Your task to perform on an android device: Open accessibility settings Image 0: 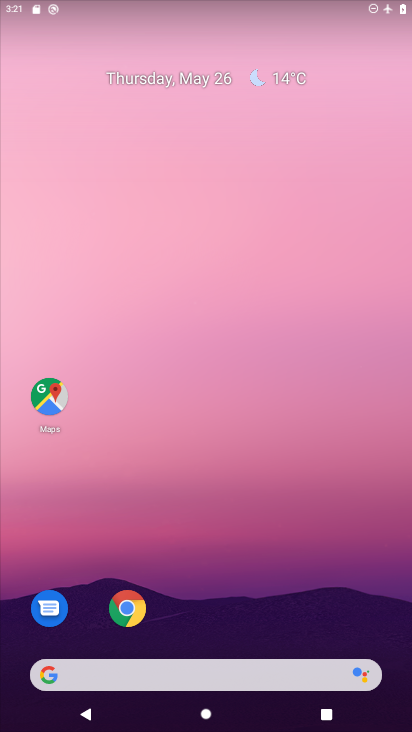
Step 0: drag from (275, 405) to (337, 27)
Your task to perform on an android device: Open accessibility settings Image 1: 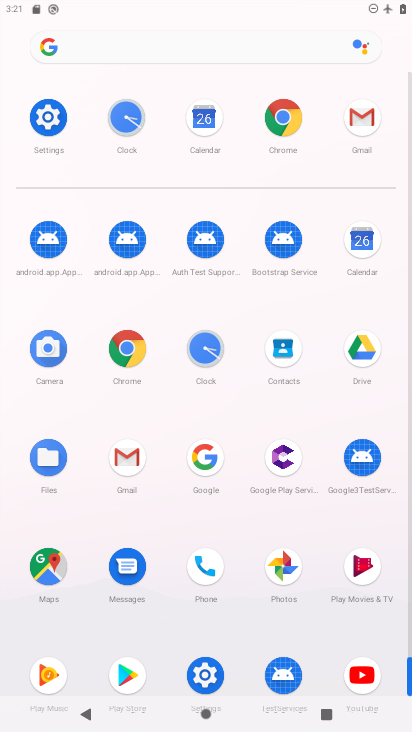
Step 1: click (48, 118)
Your task to perform on an android device: Open accessibility settings Image 2: 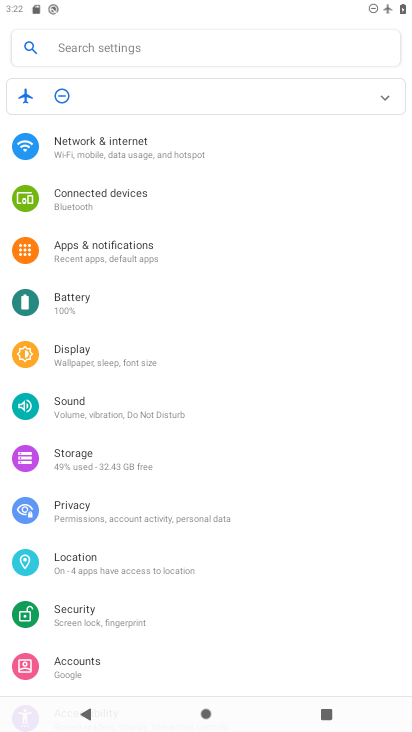
Step 2: drag from (122, 643) to (177, 186)
Your task to perform on an android device: Open accessibility settings Image 3: 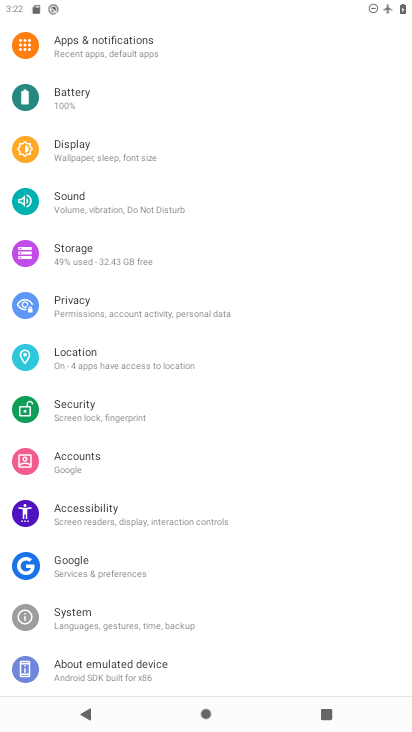
Step 3: click (98, 513)
Your task to perform on an android device: Open accessibility settings Image 4: 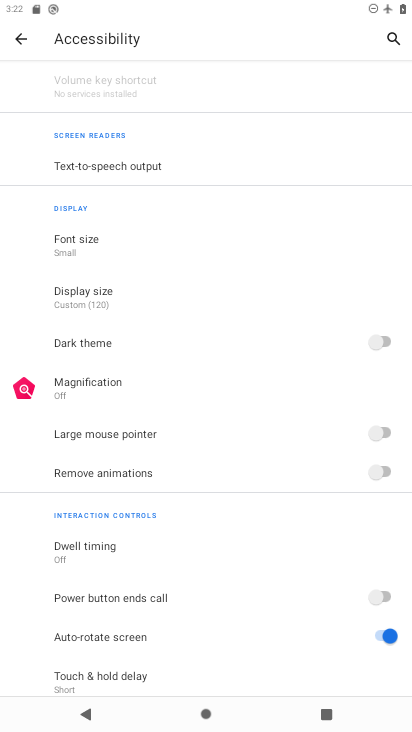
Step 4: task complete